Your task to perform on an android device: Go to Reddit.com Image 0: 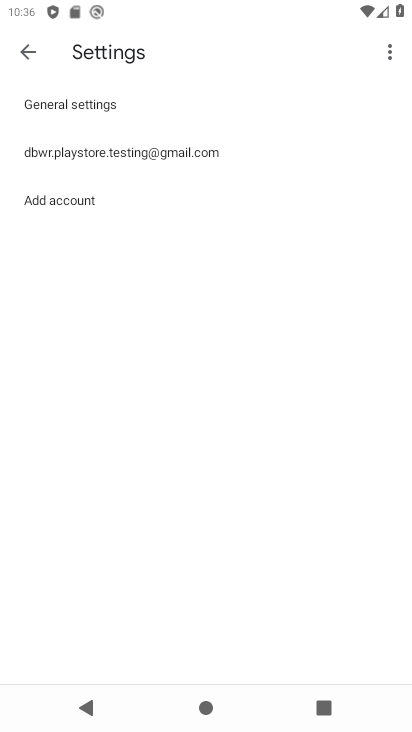
Step 0: press home button
Your task to perform on an android device: Go to Reddit.com Image 1: 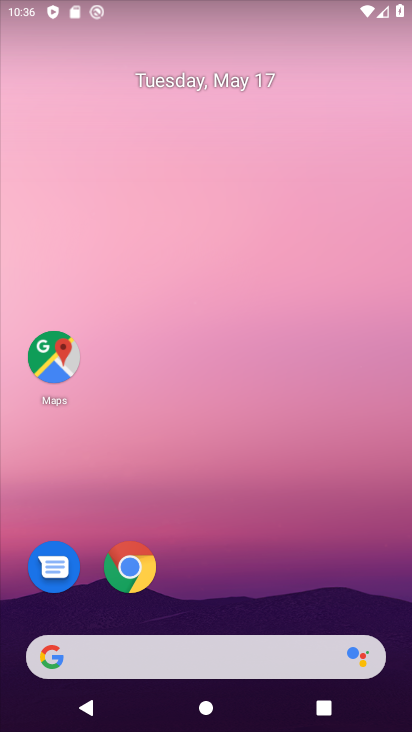
Step 1: click (132, 575)
Your task to perform on an android device: Go to Reddit.com Image 2: 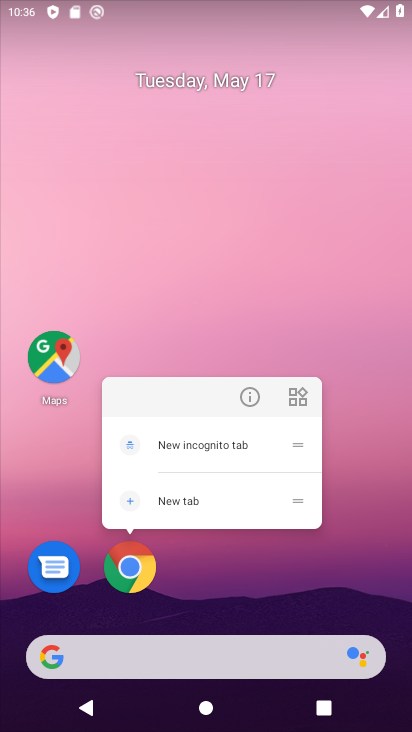
Step 2: click (128, 571)
Your task to perform on an android device: Go to Reddit.com Image 3: 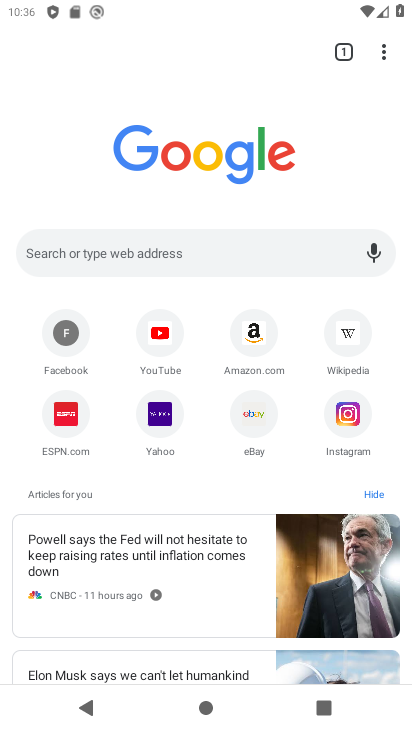
Step 3: click (193, 252)
Your task to perform on an android device: Go to Reddit.com Image 4: 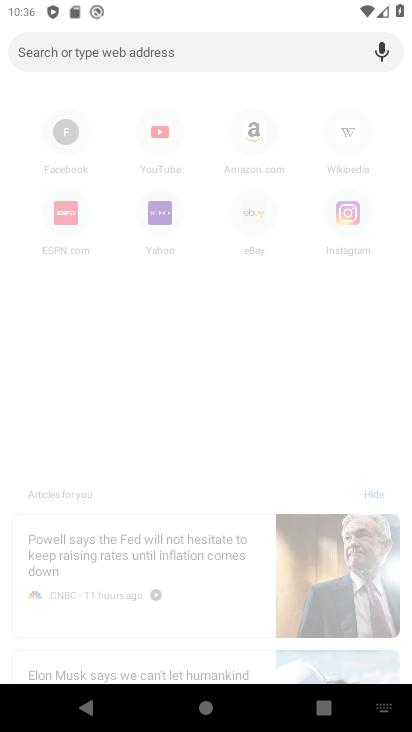
Step 4: type "www.reddit.com"
Your task to perform on an android device: Go to Reddit.com Image 5: 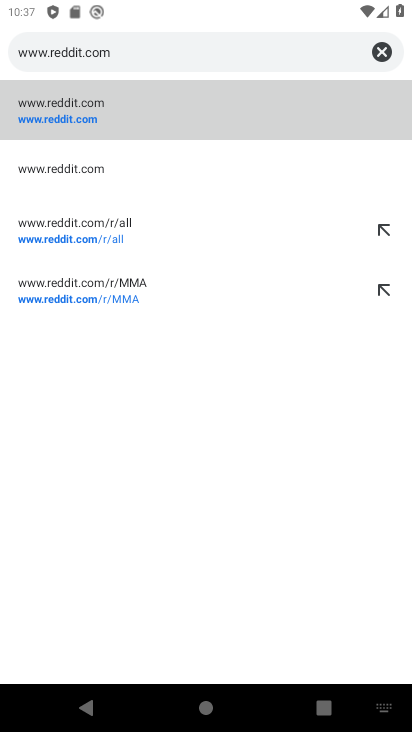
Step 5: click (76, 129)
Your task to perform on an android device: Go to Reddit.com Image 6: 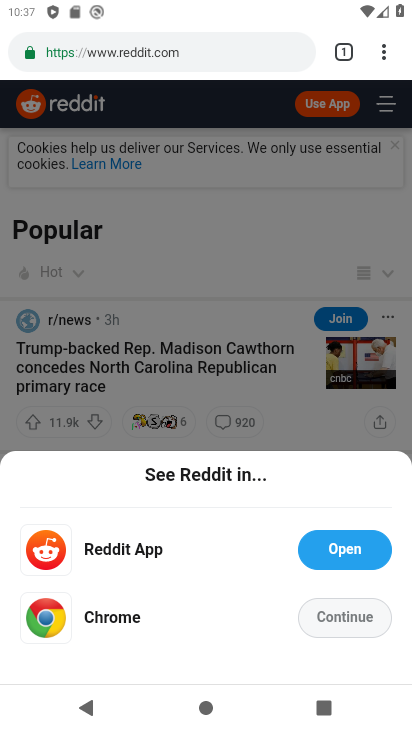
Step 6: click (334, 616)
Your task to perform on an android device: Go to Reddit.com Image 7: 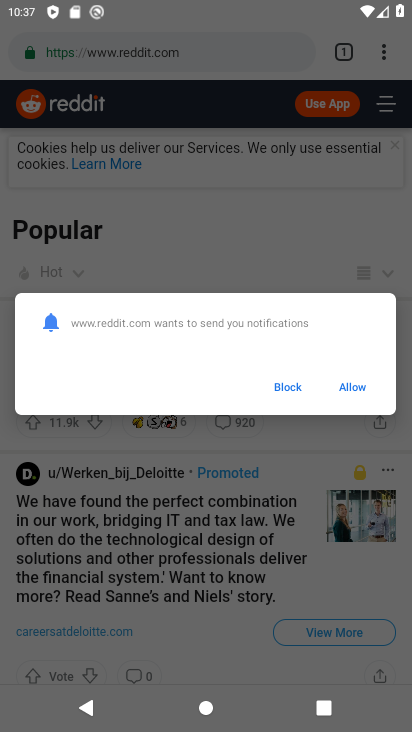
Step 7: task complete